Your task to perform on an android device: set an alarm Image 0: 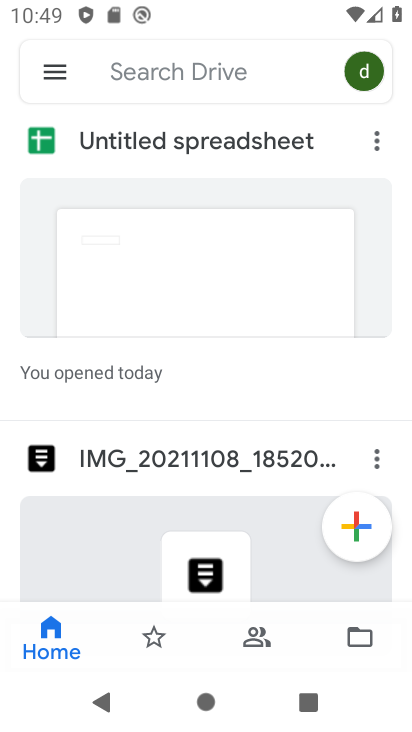
Step 0: press home button
Your task to perform on an android device: set an alarm Image 1: 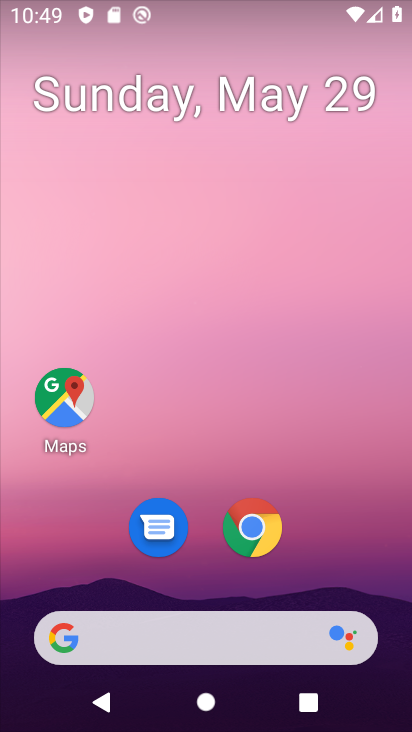
Step 1: drag from (213, 543) to (182, 88)
Your task to perform on an android device: set an alarm Image 2: 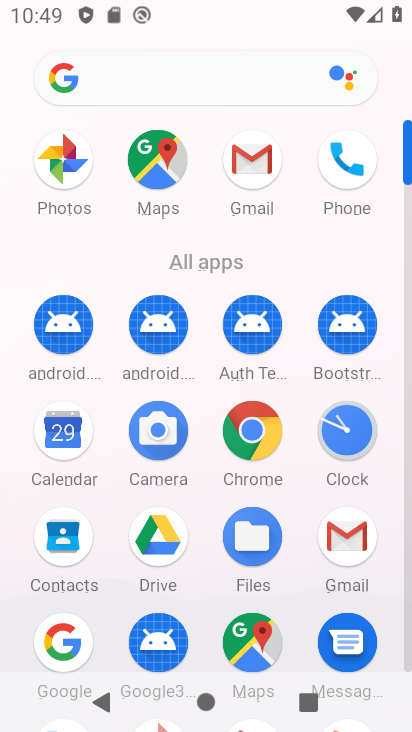
Step 2: click (350, 436)
Your task to perform on an android device: set an alarm Image 3: 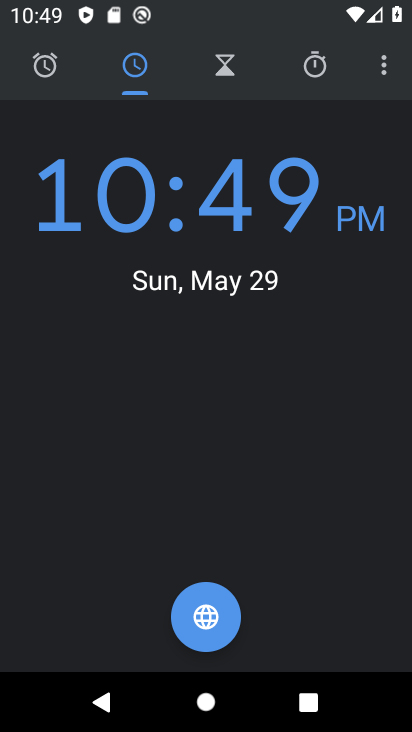
Step 3: click (51, 65)
Your task to perform on an android device: set an alarm Image 4: 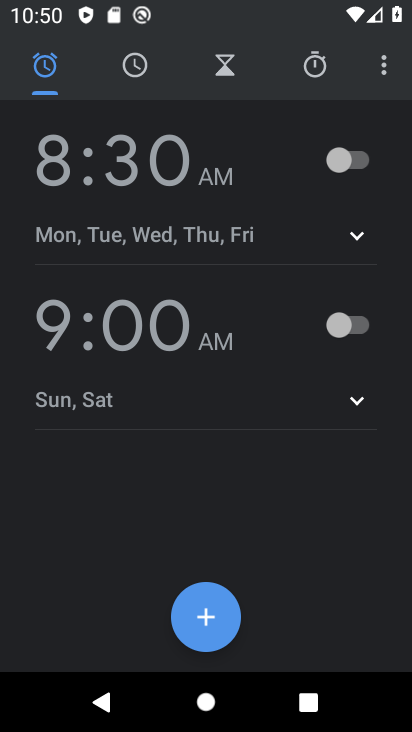
Step 4: click (363, 161)
Your task to perform on an android device: set an alarm Image 5: 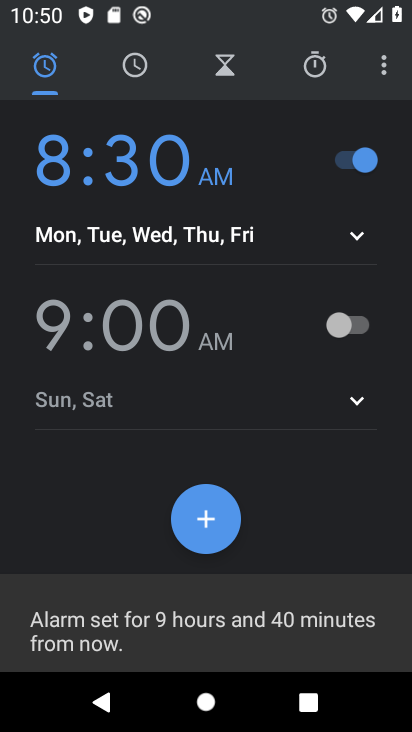
Step 5: task complete